Your task to perform on an android device: Go to Google maps Image 0: 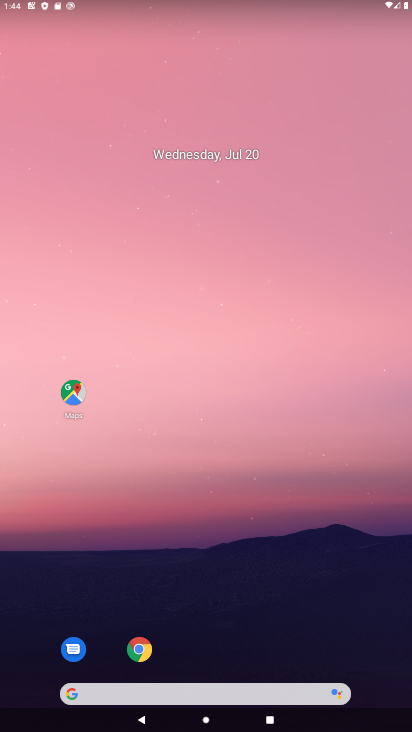
Step 0: click (68, 401)
Your task to perform on an android device: Go to Google maps Image 1: 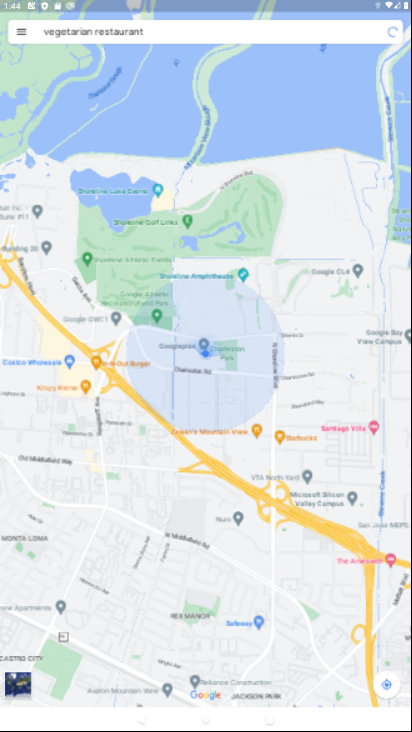
Step 1: task complete